Your task to perform on an android device: Open calendar and show me the second week of next month Image 0: 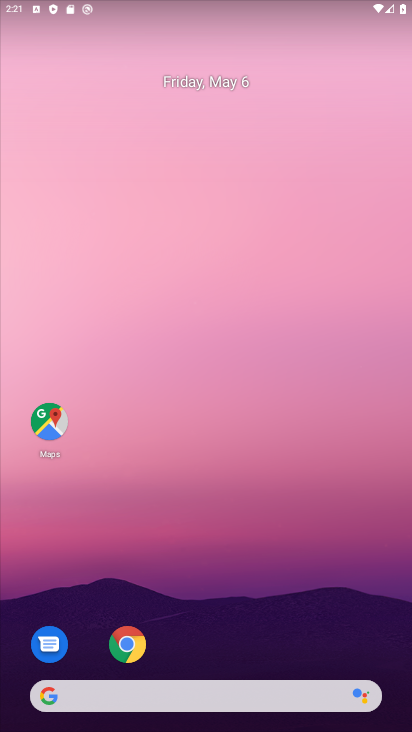
Step 0: drag from (221, 713) to (230, 136)
Your task to perform on an android device: Open calendar and show me the second week of next month Image 1: 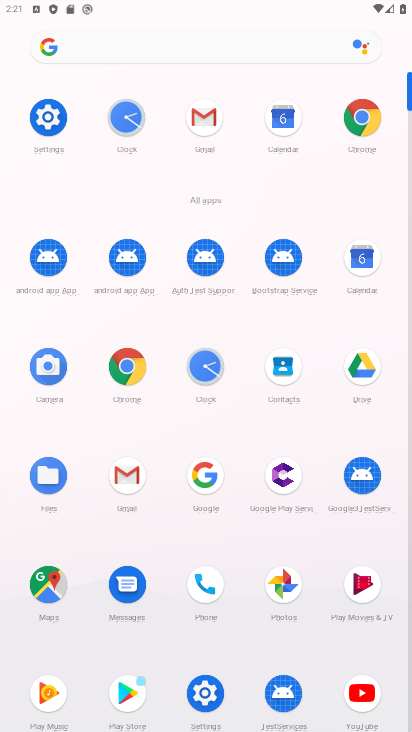
Step 1: click (372, 267)
Your task to perform on an android device: Open calendar and show me the second week of next month Image 2: 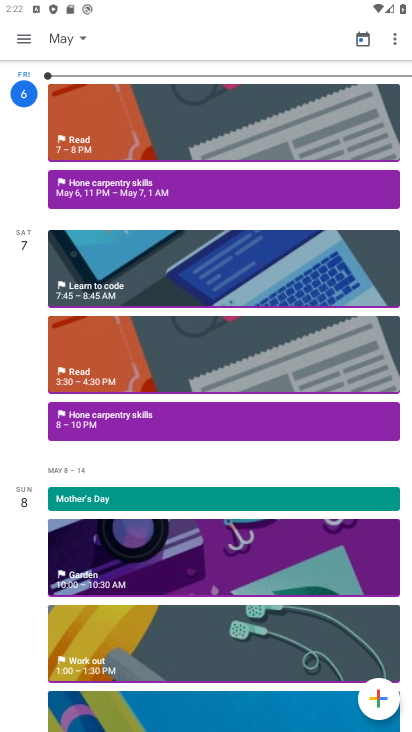
Step 2: click (65, 40)
Your task to perform on an android device: Open calendar and show me the second week of next month Image 3: 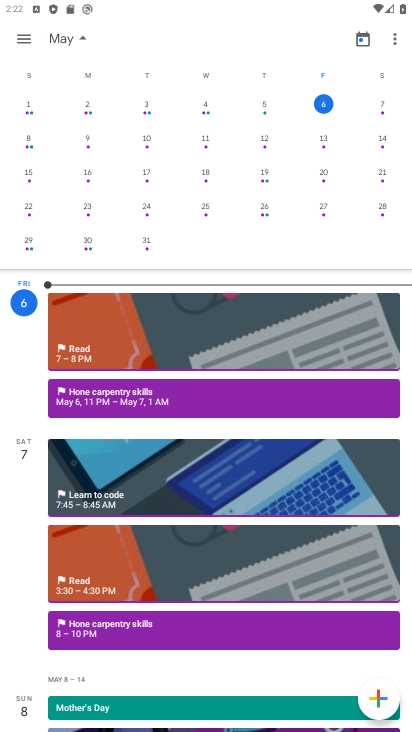
Step 3: drag from (331, 232) to (5, 143)
Your task to perform on an android device: Open calendar and show me the second week of next month Image 4: 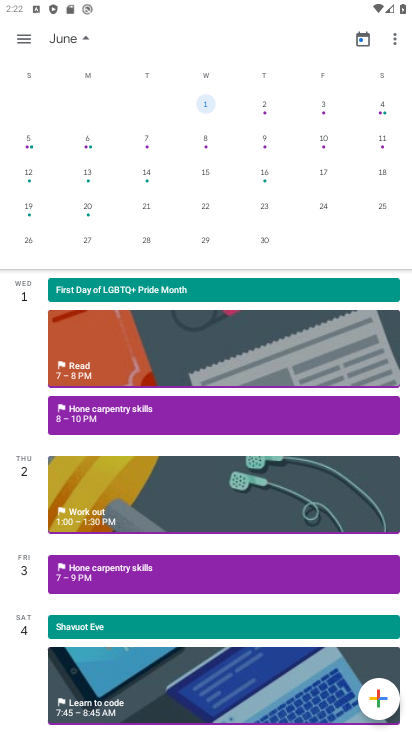
Step 4: click (22, 144)
Your task to perform on an android device: Open calendar and show me the second week of next month Image 5: 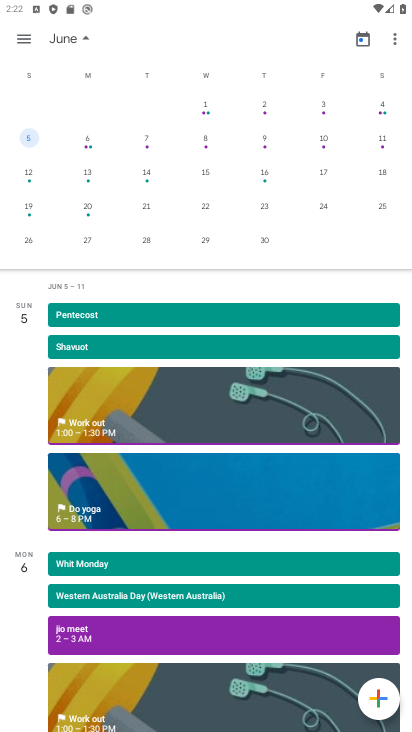
Step 5: task complete